Your task to perform on an android device: Add "logitech g910" to the cart on newegg.com Image 0: 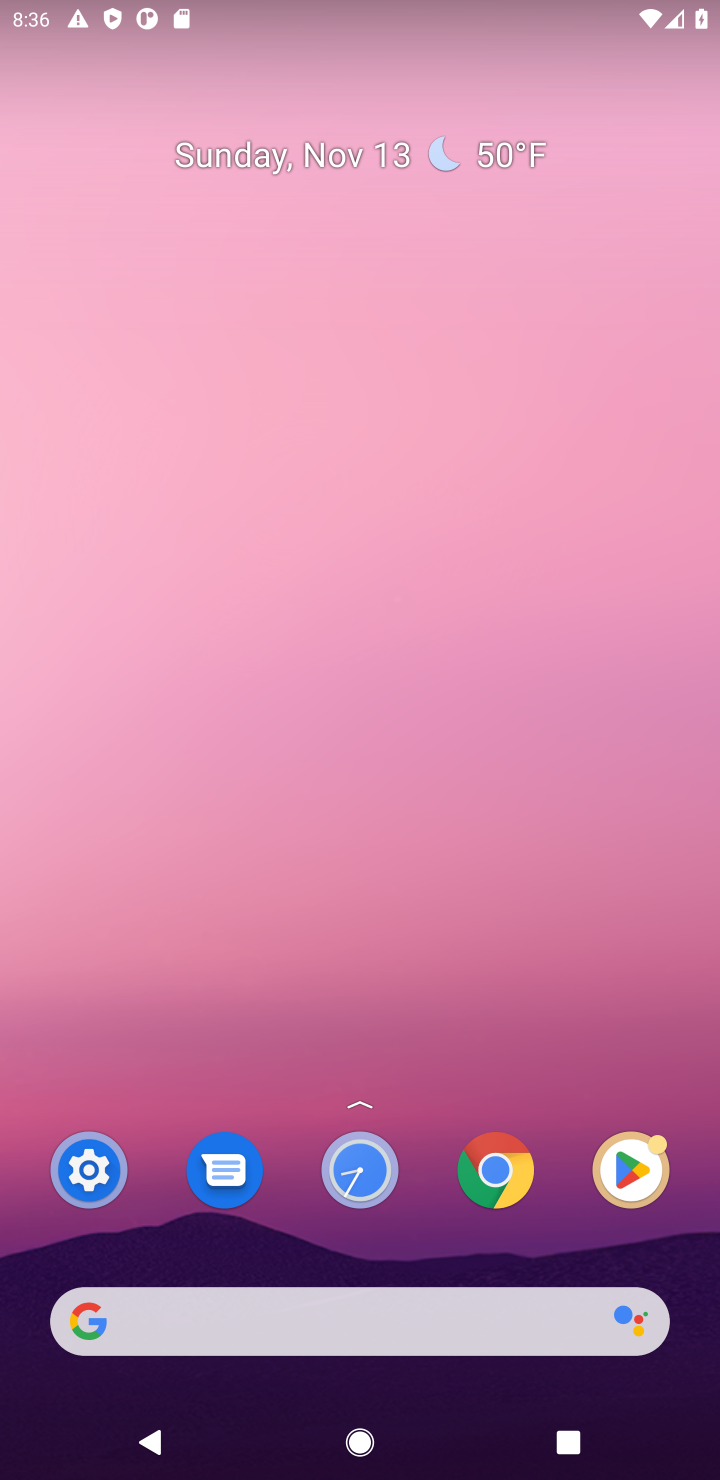
Step 0: task complete